Your task to perform on an android device: Open Youtube and go to "Your channel" Image 0: 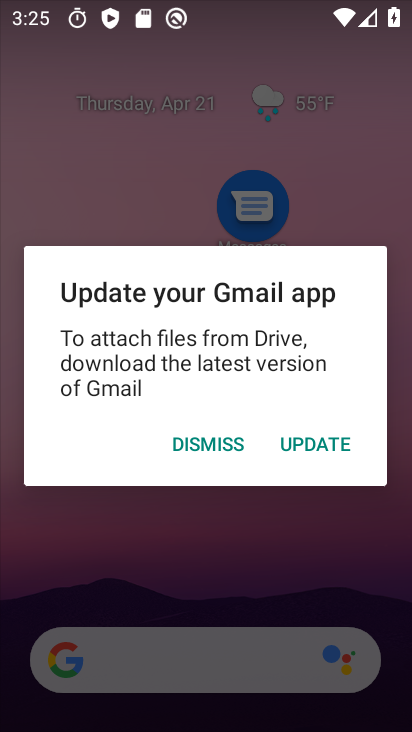
Step 0: press home button
Your task to perform on an android device: Open Youtube and go to "Your channel" Image 1: 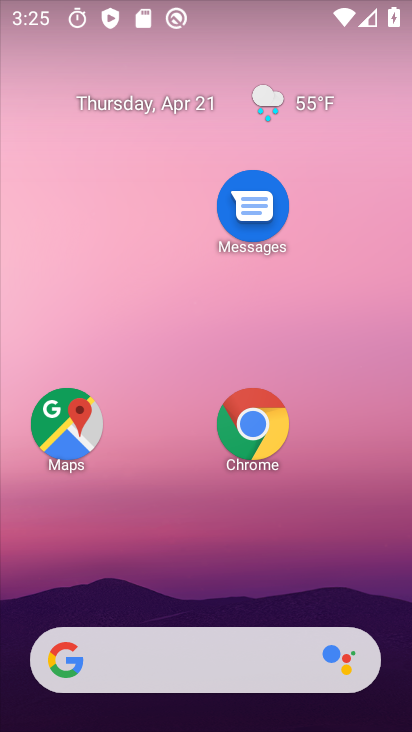
Step 1: drag from (215, 522) to (212, 69)
Your task to perform on an android device: Open Youtube and go to "Your channel" Image 2: 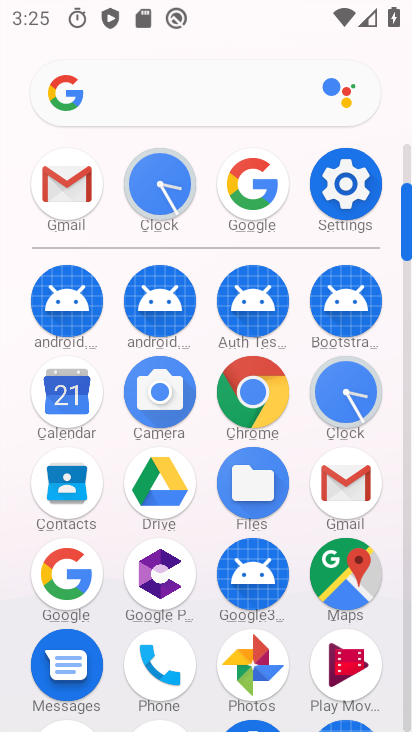
Step 2: drag from (205, 619) to (229, 181)
Your task to perform on an android device: Open Youtube and go to "Your channel" Image 3: 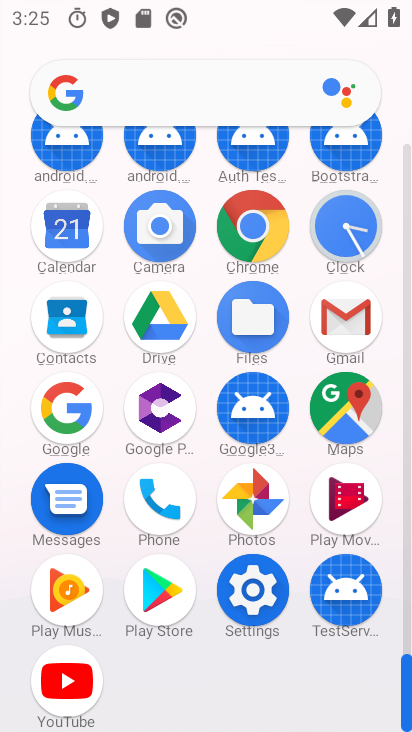
Step 3: click (60, 676)
Your task to perform on an android device: Open Youtube and go to "Your channel" Image 4: 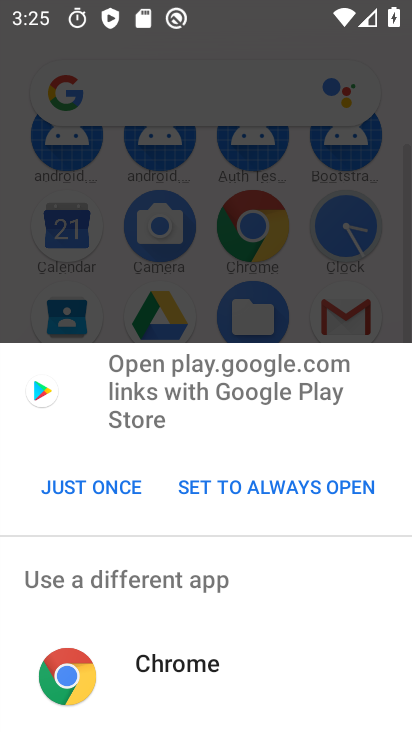
Step 4: click (97, 491)
Your task to perform on an android device: Open Youtube and go to "Your channel" Image 5: 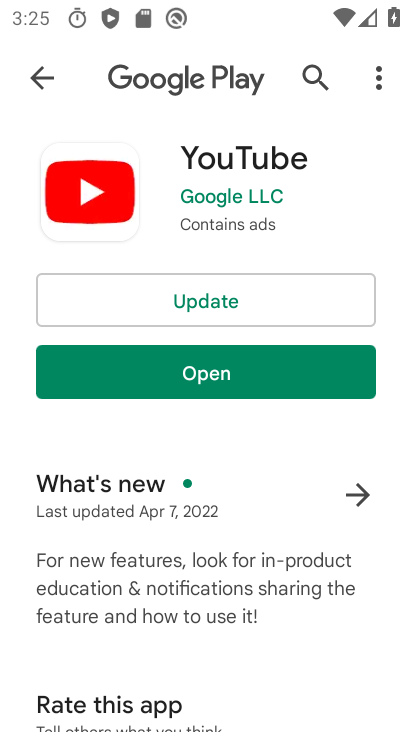
Step 5: click (210, 312)
Your task to perform on an android device: Open Youtube and go to "Your channel" Image 6: 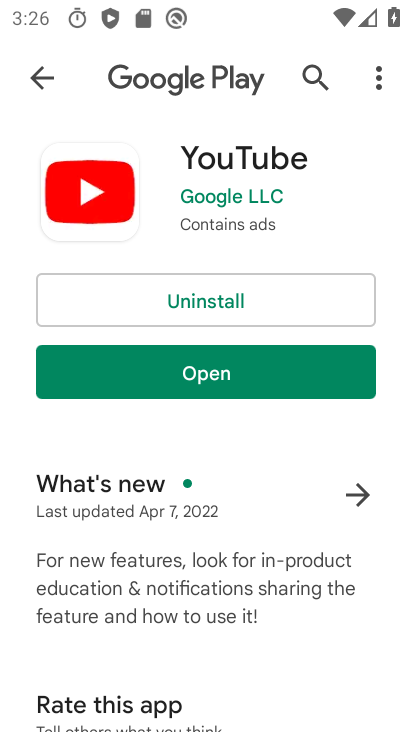
Step 6: click (161, 370)
Your task to perform on an android device: Open Youtube and go to "Your channel" Image 7: 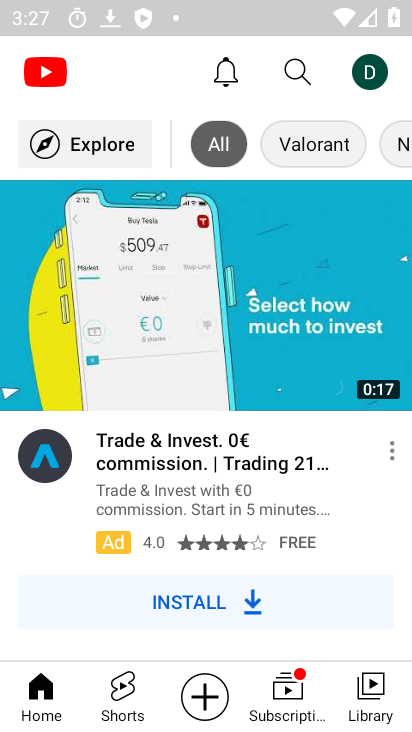
Step 7: click (369, 73)
Your task to perform on an android device: Open Youtube and go to "Your channel" Image 8: 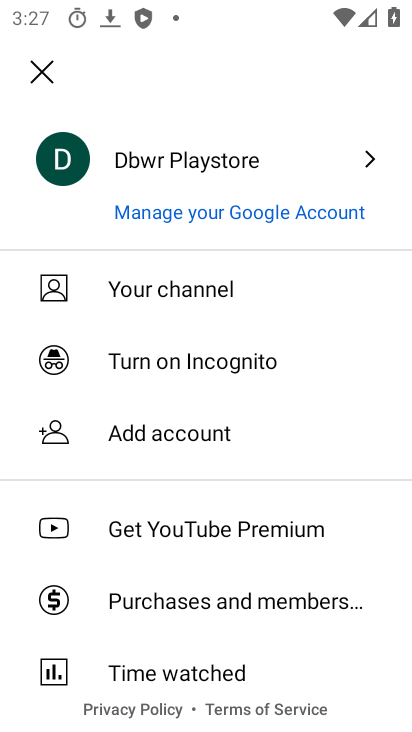
Step 8: click (167, 304)
Your task to perform on an android device: Open Youtube and go to "Your channel" Image 9: 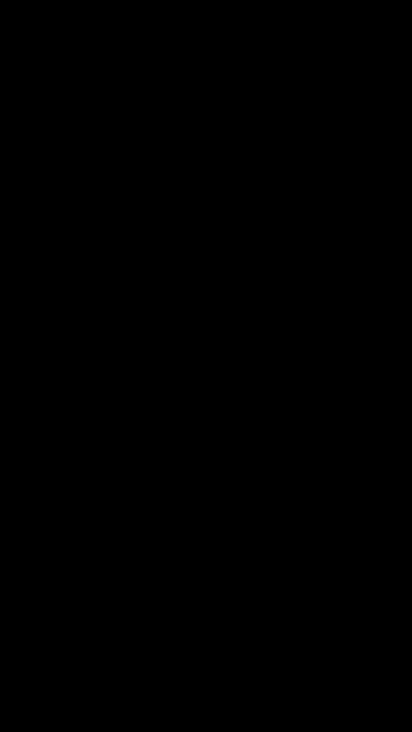
Step 9: task complete